Your task to perform on an android device: Open the Play Movies app and select the watchlist tab. Image 0: 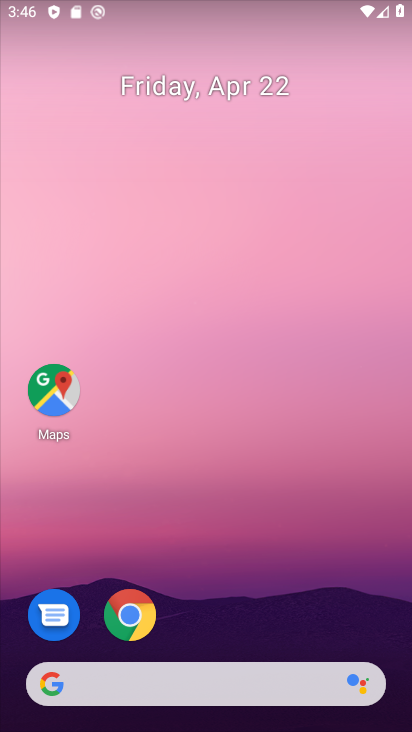
Step 0: drag from (215, 561) to (203, 201)
Your task to perform on an android device: Open the Play Movies app and select the watchlist tab. Image 1: 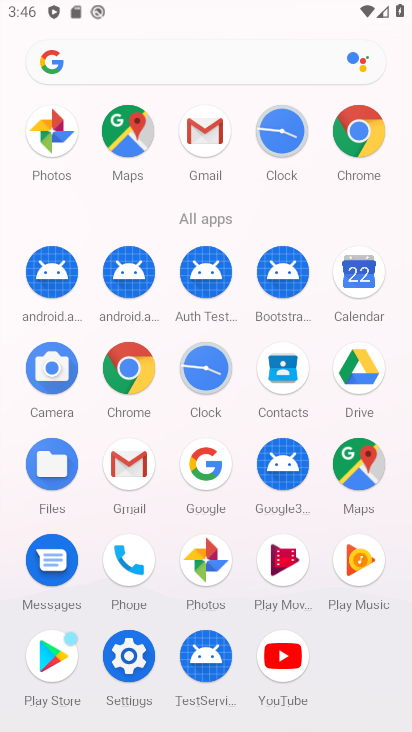
Step 1: click (282, 568)
Your task to perform on an android device: Open the Play Movies app and select the watchlist tab. Image 2: 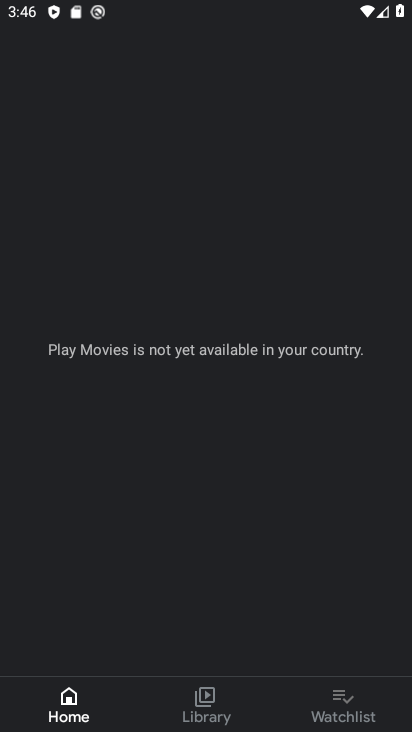
Step 2: click (330, 706)
Your task to perform on an android device: Open the Play Movies app and select the watchlist tab. Image 3: 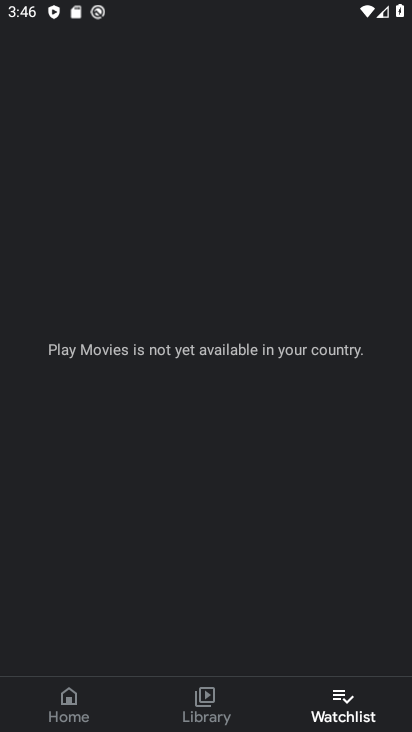
Step 3: task complete